Your task to perform on an android device: toggle show notifications on the lock screen Image 0: 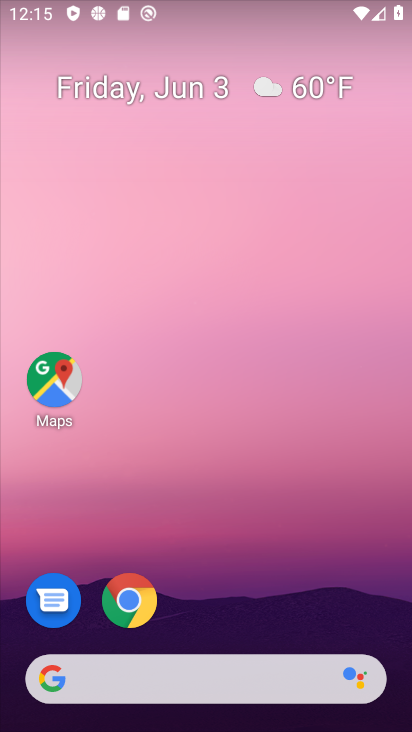
Step 0: drag from (251, 483) to (224, 112)
Your task to perform on an android device: toggle show notifications on the lock screen Image 1: 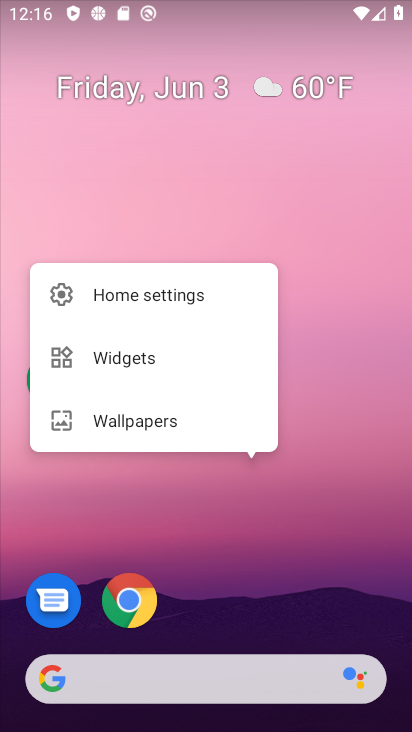
Step 1: click (358, 396)
Your task to perform on an android device: toggle show notifications on the lock screen Image 2: 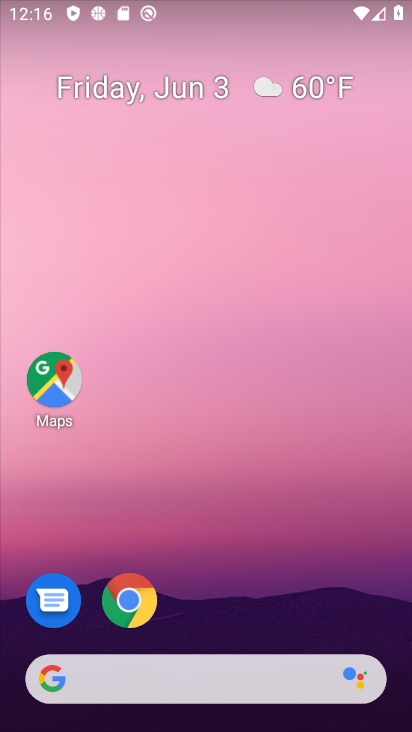
Step 2: drag from (239, 633) to (238, 204)
Your task to perform on an android device: toggle show notifications on the lock screen Image 3: 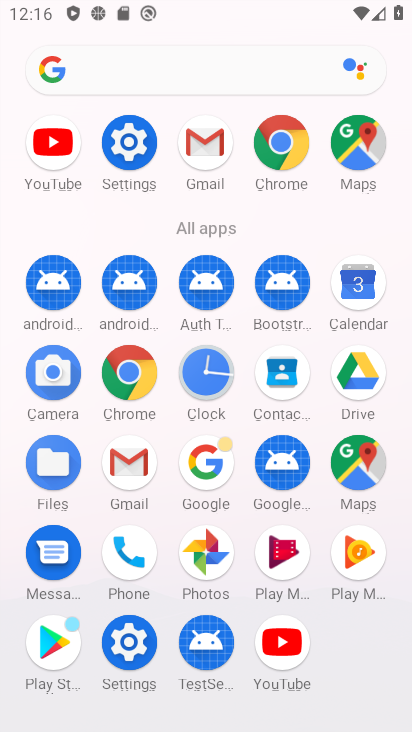
Step 3: click (141, 140)
Your task to perform on an android device: toggle show notifications on the lock screen Image 4: 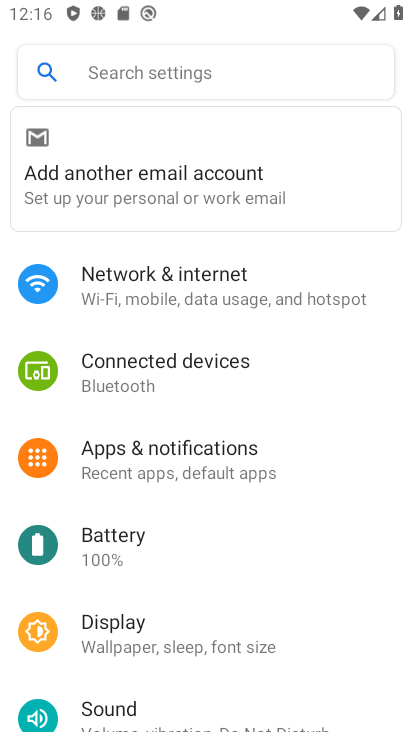
Step 4: drag from (286, 646) to (182, 591)
Your task to perform on an android device: toggle show notifications on the lock screen Image 5: 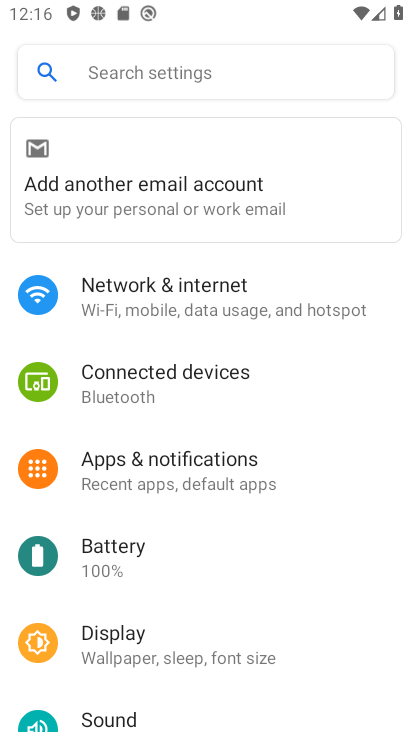
Step 5: click (184, 302)
Your task to perform on an android device: toggle show notifications on the lock screen Image 6: 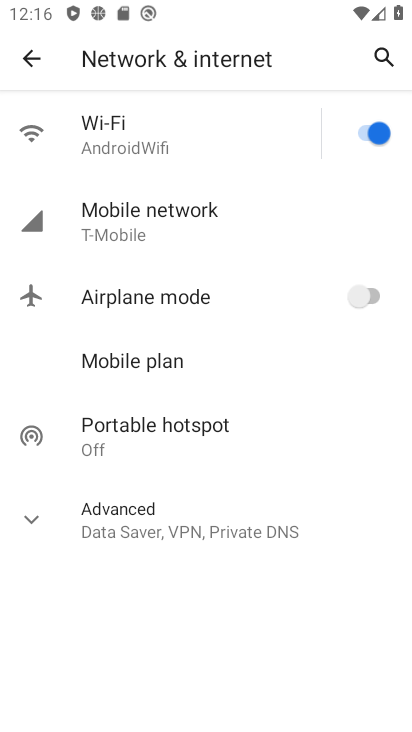
Step 6: click (33, 55)
Your task to perform on an android device: toggle show notifications on the lock screen Image 7: 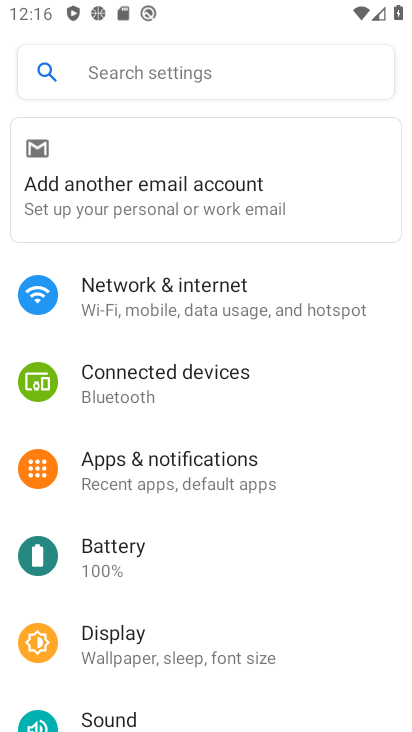
Step 7: click (214, 487)
Your task to perform on an android device: toggle show notifications on the lock screen Image 8: 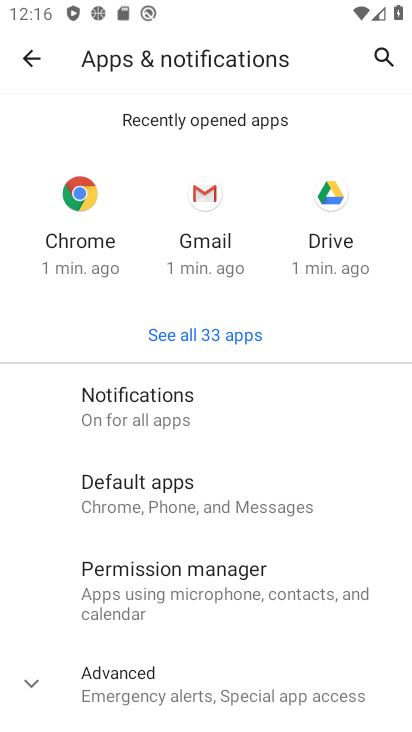
Step 8: click (183, 405)
Your task to perform on an android device: toggle show notifications on the lock screen Image 9: 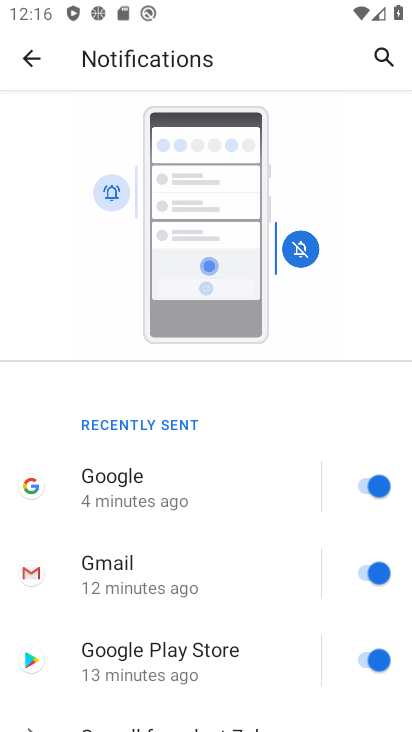
Step 9: drag from (177, 625) to (241, 156)
Your task to perform on an android device: toggle show notifications on the lock screen Image 10: 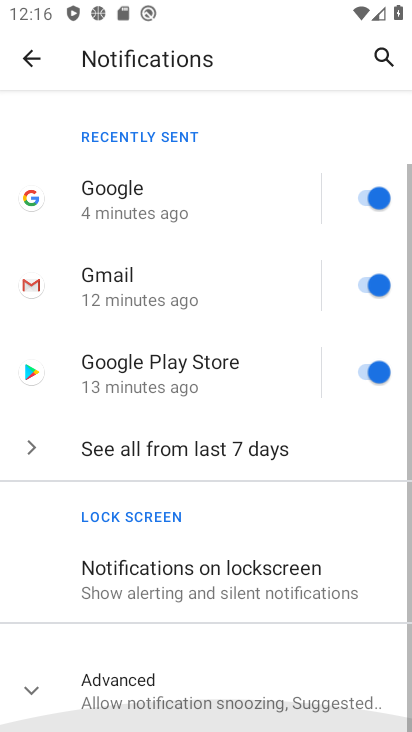
Step 10: click (247, 86)
Your task to perform on an android device: toggle show notifications on the lock screen Image 11: 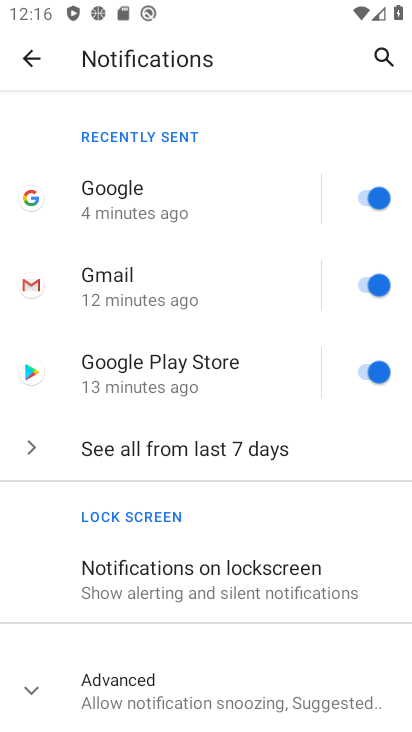
Step 11: click (228, 577)
Your task to perform on an android device: toggle show notifications on the lock screen Image 12: 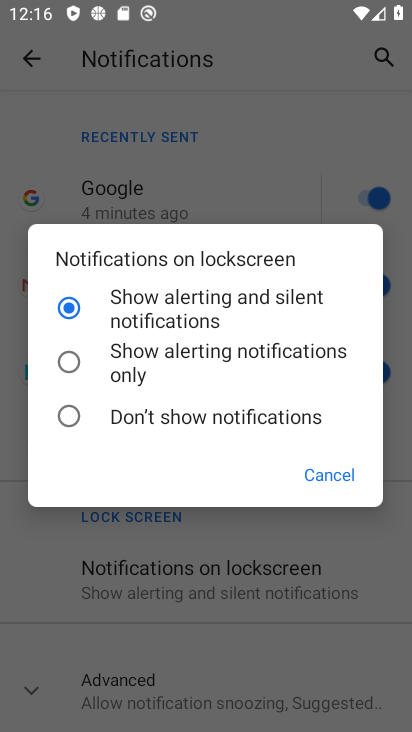
Step 12: click (228, 368)
Your task to perform on an android device: toggle show notifications on the lock screen Image 13: 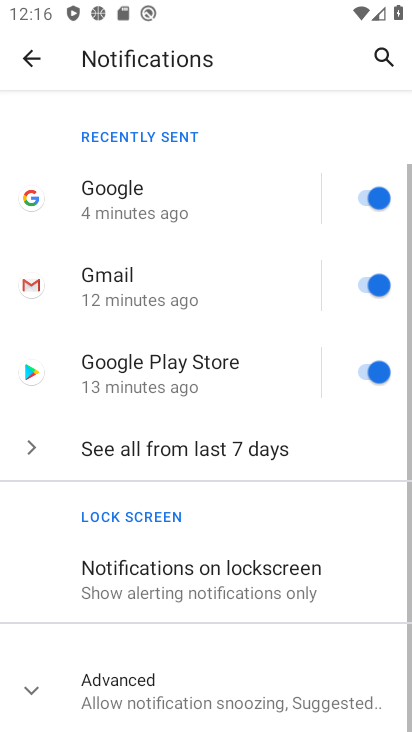
Step 13: task complete